Your task to perform on an android device: Open Amazon Image 0: 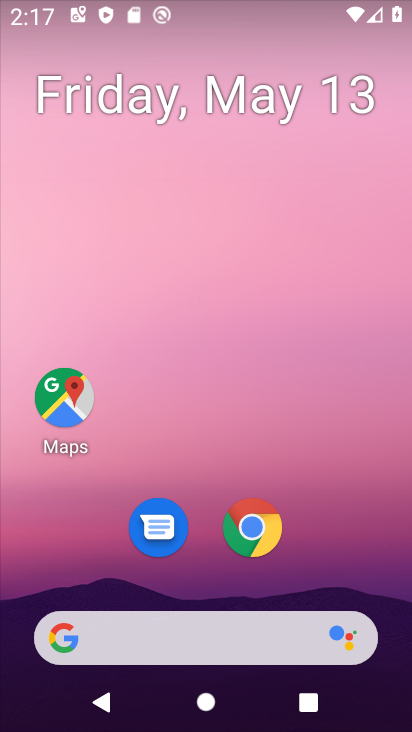
Step 0: click (245, 541)
Your task to perform on an android device: Open Amazon Image 1: 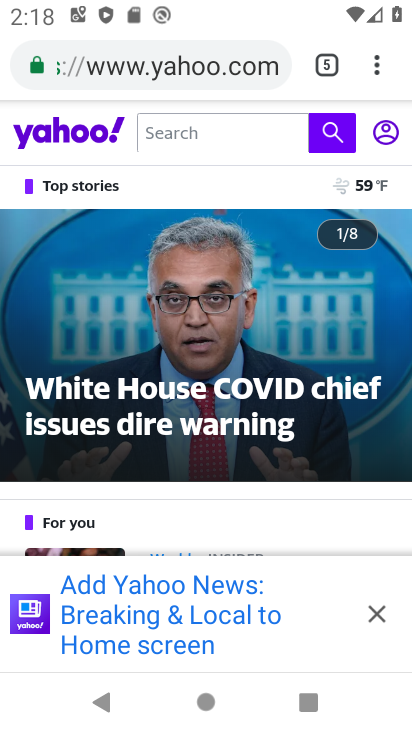
Step 1: click (333, 58)
Your task to perform on an android device: Open Amazon Image 2: 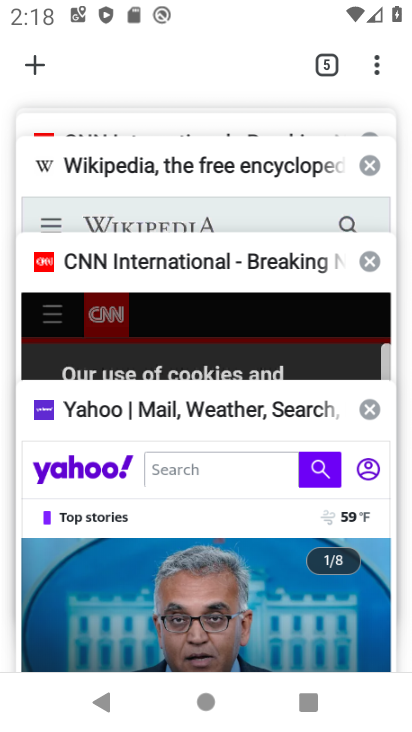
Step 2: click (47, 82)
Your task to perform on an android device: Open Amazon Image 3: 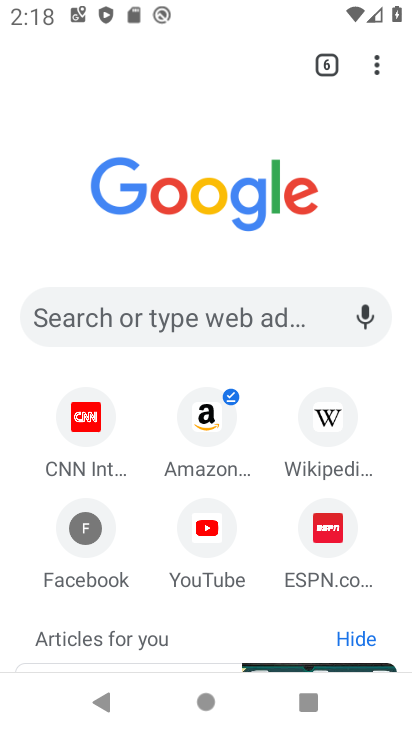
Step 3: click (220, 421)
Your task to perform on an android device: Open Amazon Image 4: 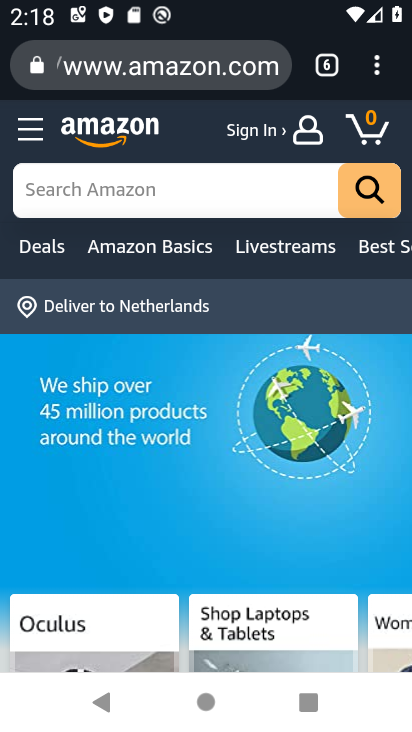
Step 4: task complete